Your task to perform on an android device: Go to wifi settings Image 0: 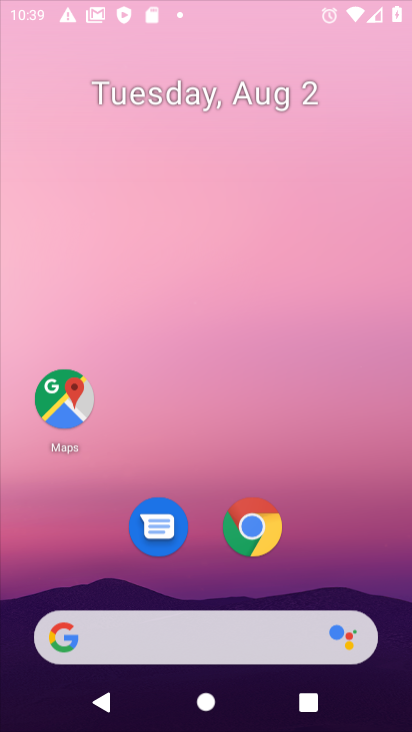
Step 0: press home button
Your task to perform on an android device: Go to wifi settings Image 1: 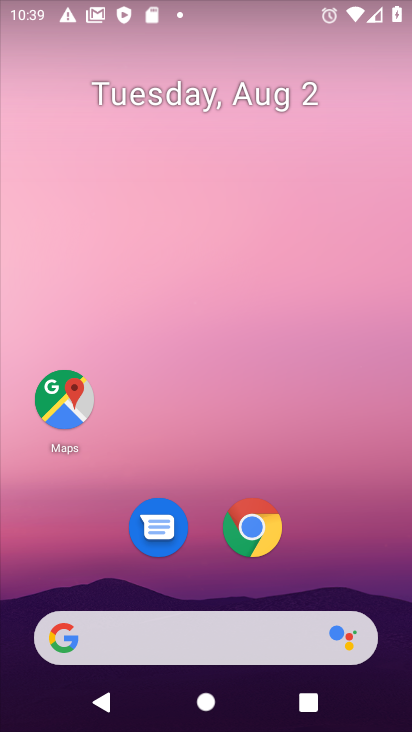
Step 1: drag from (188, 595) to (215, 1)
Your task to perform on an android device: Go to wifi settings Image 2: 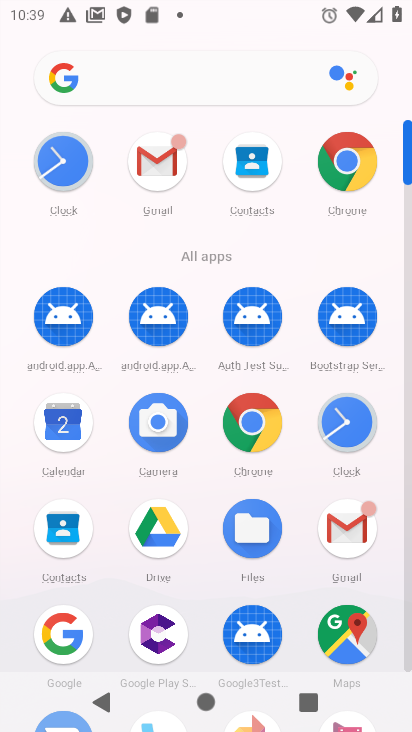
Step 2: drag from (203, 589) to (201, 11)
Your task to perform on an android device: Go to wifi settings Image 3: 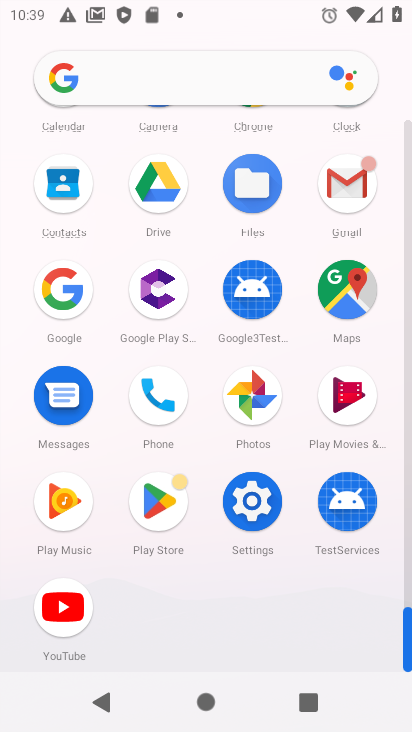
Step 3: click (246, 492)
Your task to perform on an android device: Go to wifi settings Image 4: 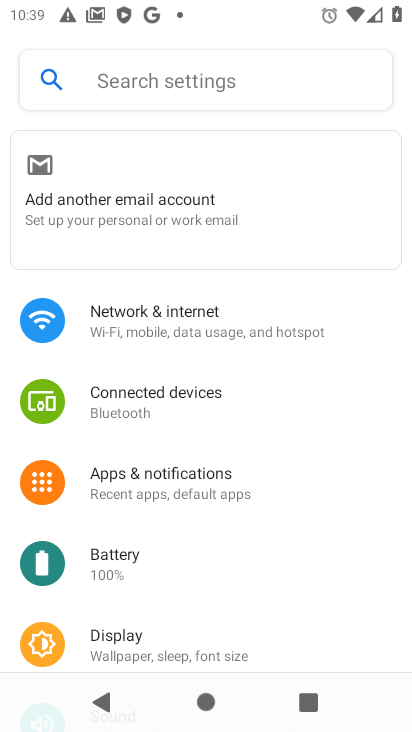
Step 4: click (142, 317)
Your task to perform on an android device: Go to wifi settings Image 5: 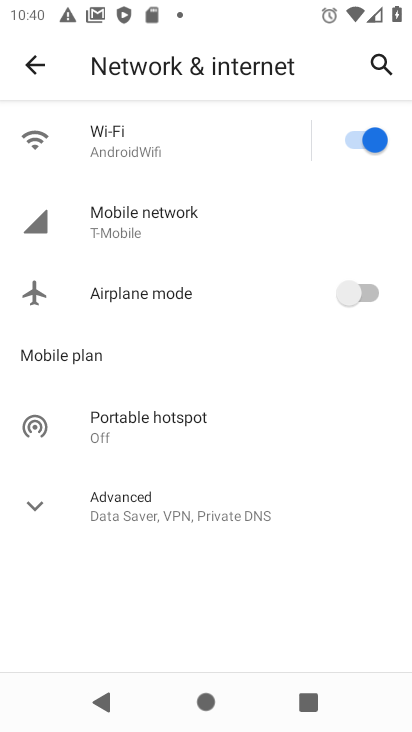
Step 5: click (133, 140)
Your task to perform on an android device: Go to wifi settings Image 6: 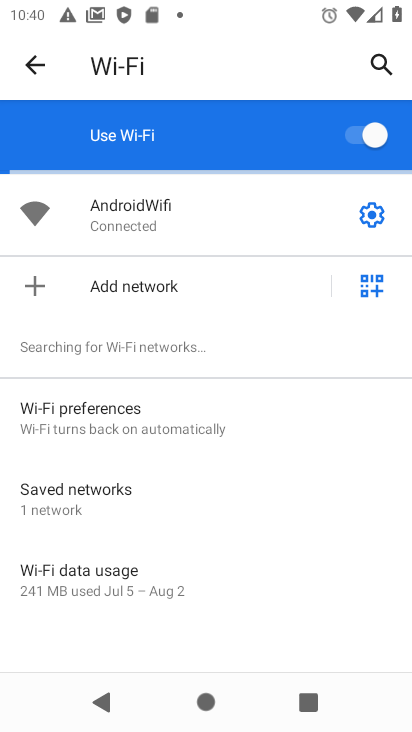
Step 6: task complete